Your task to perform on an android device: Search for vegetarian restaurants on Maps Image 0: 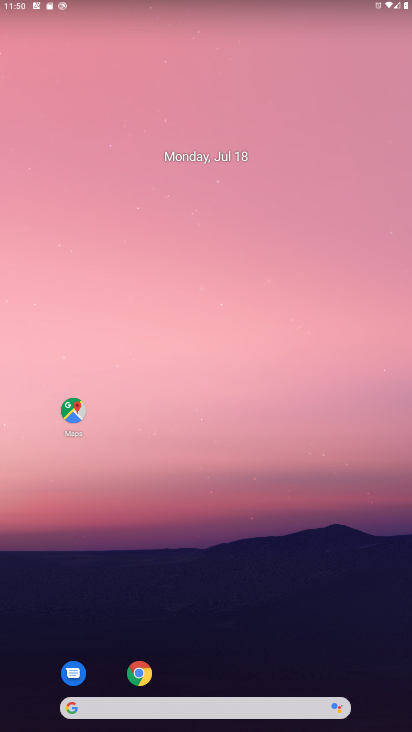
Step 0: click (68, 400)
Your task to perform on an android device: Search for vegetarian restaurants on Maps Image 1: 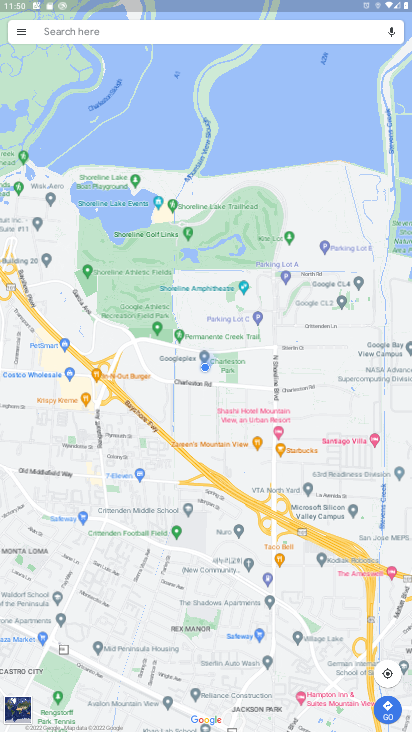
Step 1: click (227, 37)
Your task to perform on an android device: Search for vegetarian restaurants on Maps Image 2: 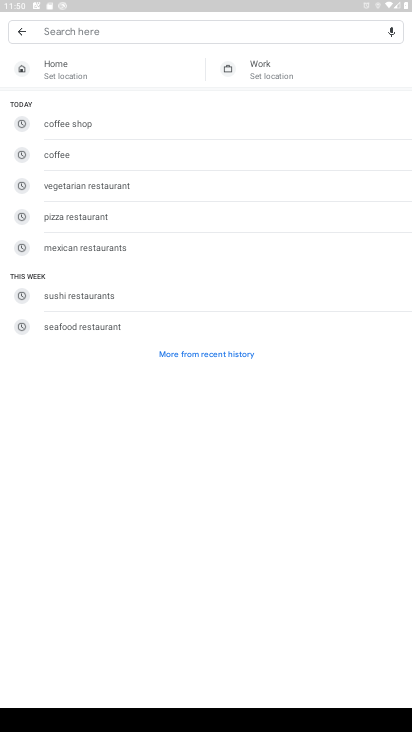
Step 2: click (140, 194)
Your task to perform on an android device: Search for vegetarian restaurants on Maps Image 3: 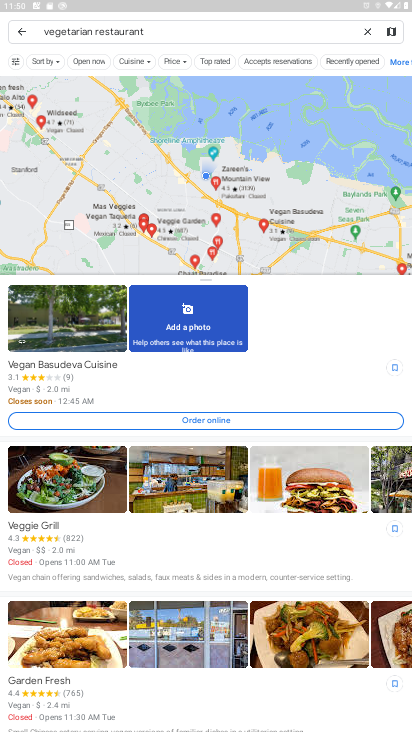
Step 3: task complete